Your task to perform on an android device: turn on translation in the chrome app Image 0: 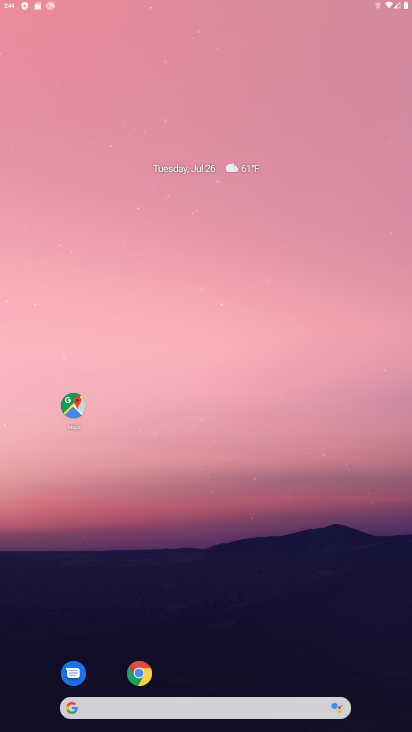
Step 0: press home button
Your task to perform on an android device: turn on translation in the chrome app Image 1: 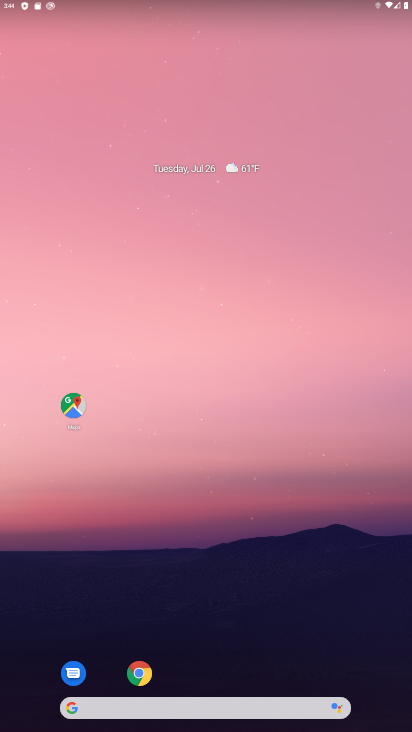
Step 1: click (135, 668)
Your task to perform on an android device: turn on translation in the chrome app Image 2: 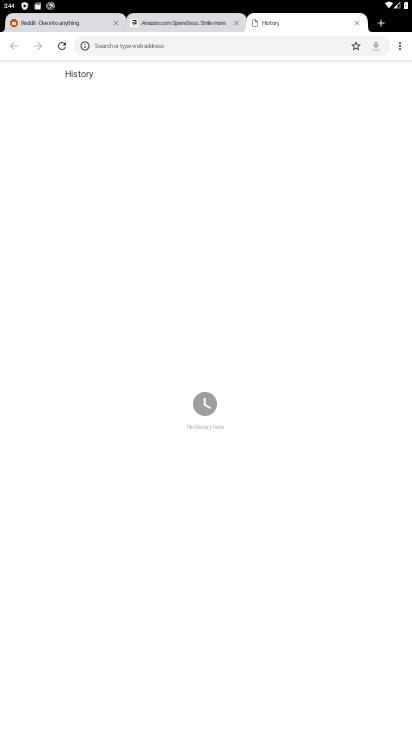
Step 2: click (400, 45)
Your task to perform on an android device: turn on translation in the chrome app Image 3: 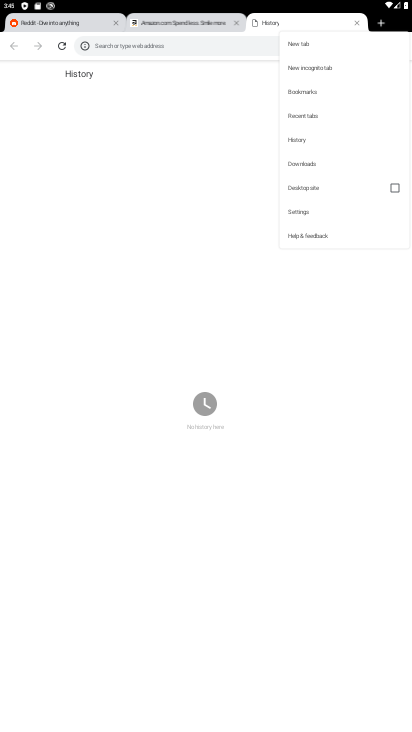
Step 3: click (311, 209)
Your task to perform on an android device: turn on translation in the chrome app Image 4: 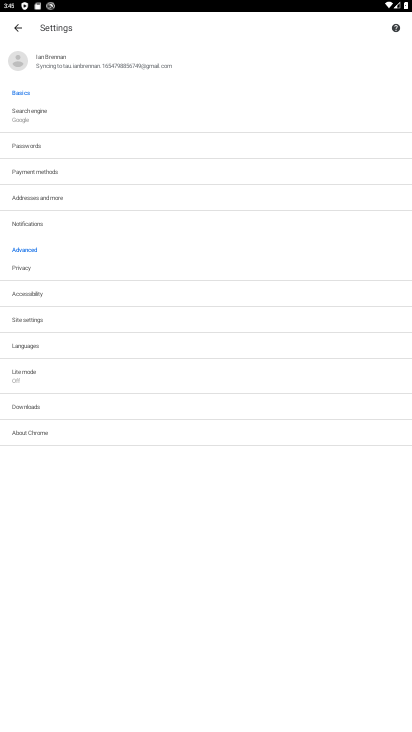
Step 4: click (54, 343)
Your task to perform on an android device: turn on translation in the chrome app Image 5: 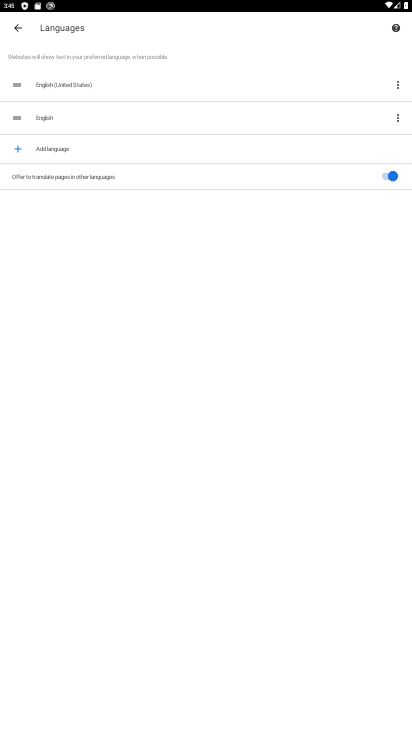
Step 5: task complete